Your task to perform on an android device: toggle priority inbox in the gmail app Image 0: 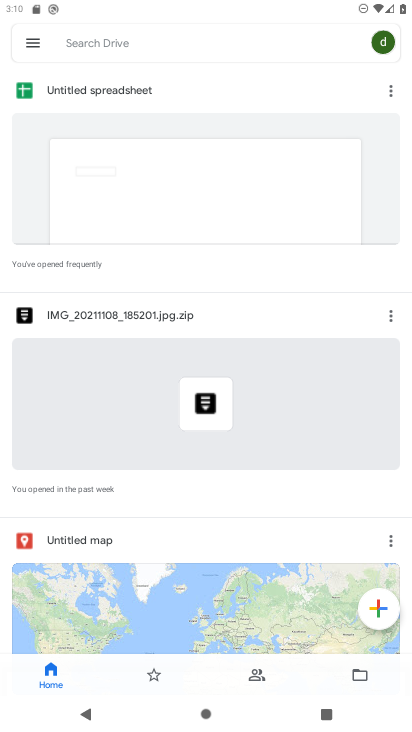
Step 0: press home button
Your task to perform on an android device: toggle priority inbox in the gmail app Image 1: 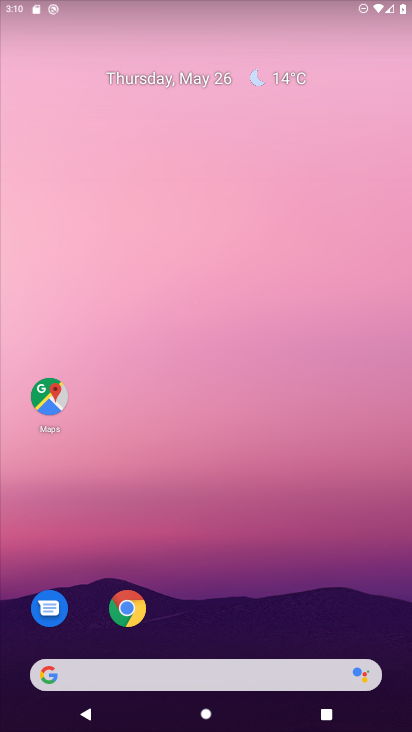
Step 1: drag from (329, 576) to (271, 116)
Your task to perform on an android device: toggle priority inbox in the gmail app Image 2: 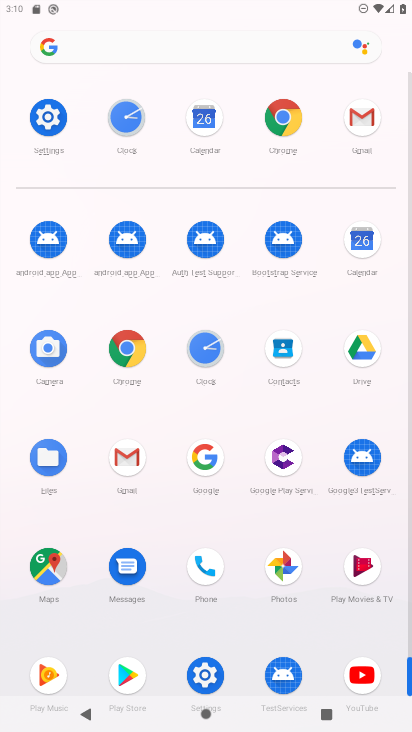
Step 2: click (362, 106)
Your task to perform on an android device: toggle priority inbox in the gmail app Image 3: 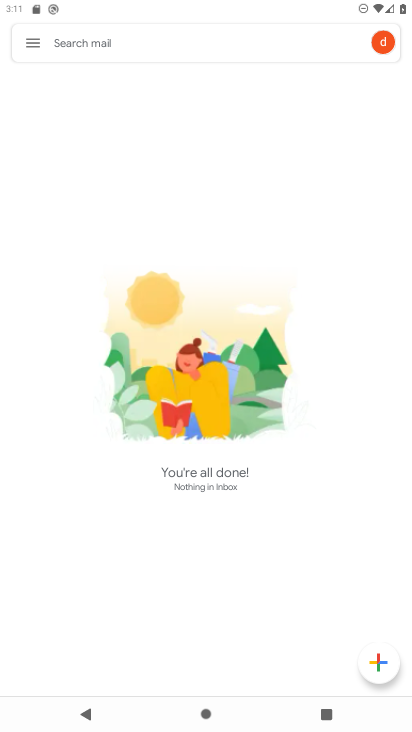
Step 3: click (24, 35)
Your task to perform on an android device: toggle priority inbox in the gmail app Image 4: 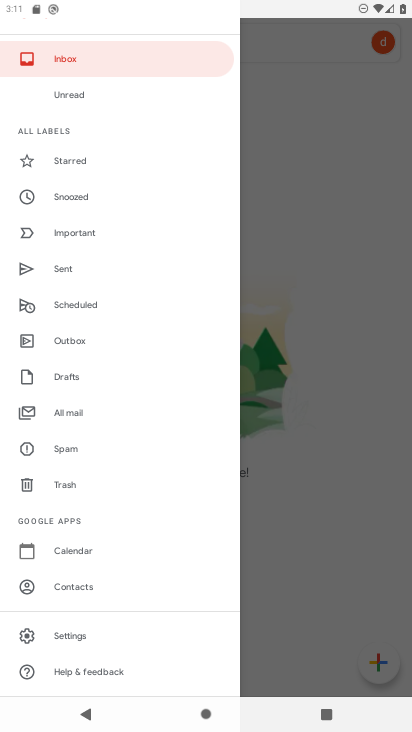
Step 4: click (86, 628)
Your task to perform on an android device: toggle priority inbox in the gmail app Image 5: 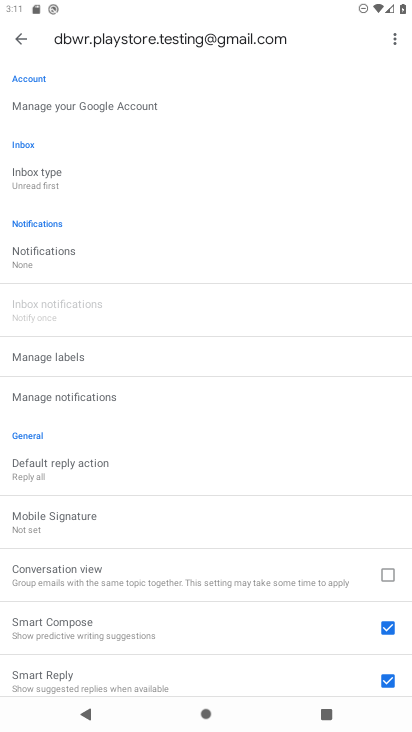
Step 5: click (31, 188)
Your task to perform on an android device: toggle priority inbox in the gmail app Image 6: 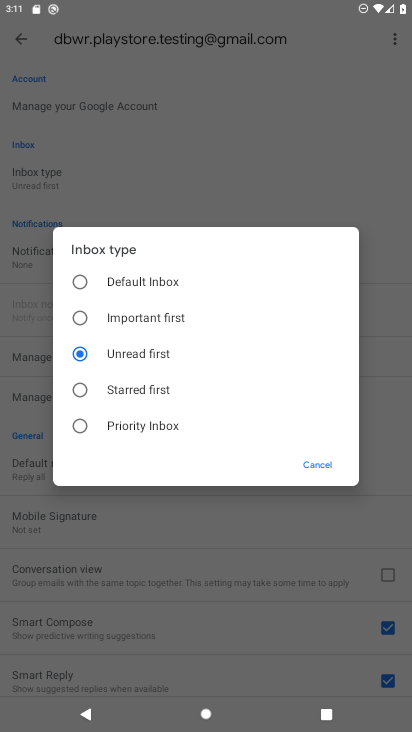
Step 6: click (107, 430)
Your task to perform on an android device: toggle priority inbox in the gmail app Image 7: 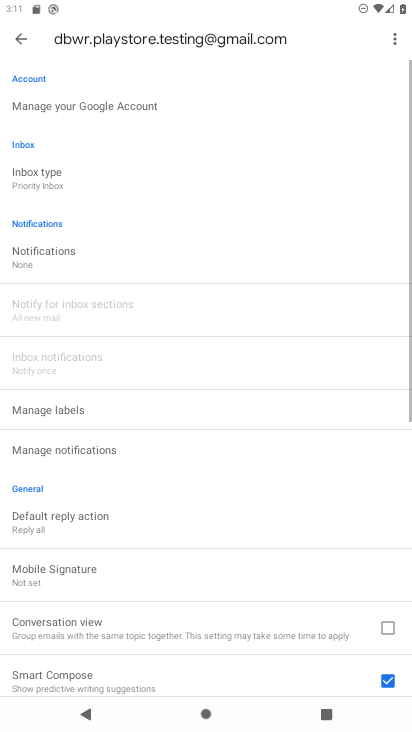
Step 7: task complete